Your task to perform on an android device: Do I have any events tomorrow? Image 0: 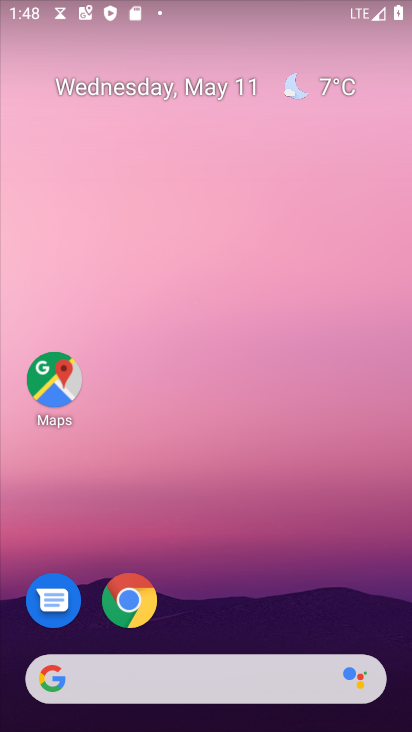
Step 0: drag from (286, 573) to (203, 177)
Your task to perform on an android device: Do I have any events tomorrow? Image 1: 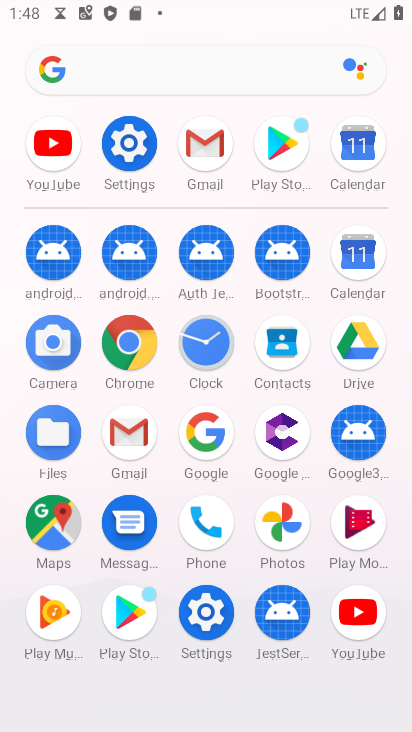
Step 1: click (355, 252)
Your task to perform on an android device: Do I have any events tomorrow? Image 2: 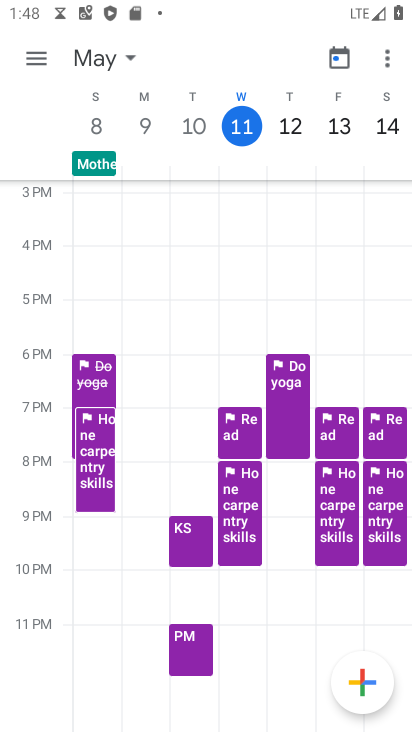
Step 2: task complete